Your task to perform on an android device: What's the weather going to be this weekend? Image 0: 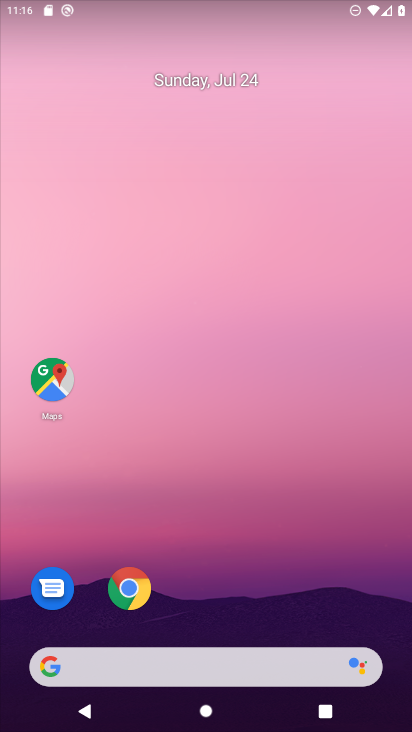
Step 0: drag from (224, 611) to (222, 90)
Your task to perform on an android device: What's the weather going to be this weekend? Image 1: 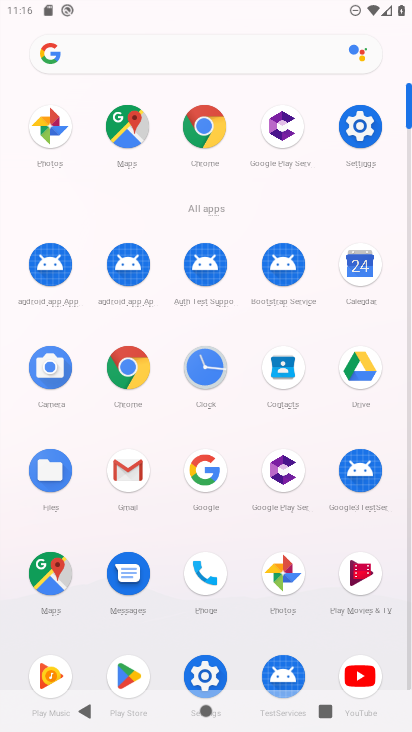
Step 1: click (213, 122)
Your task to perform on an android device: What's the weather going to be this weekend? Image 2: 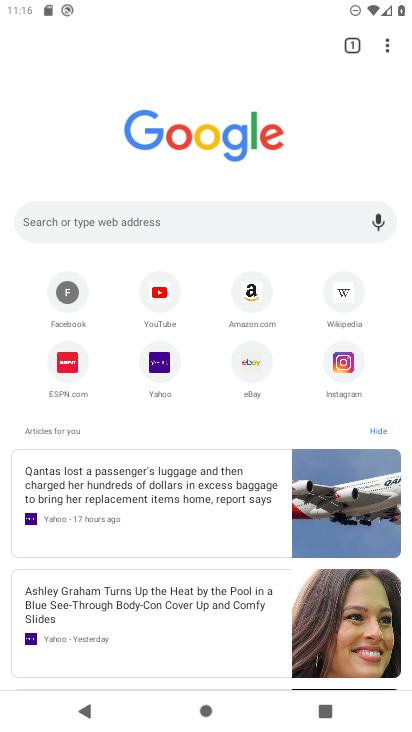
Step 2: click (137, 203)
Your task to perform on an android device: What's the weather going to be this weekend? Image 3: 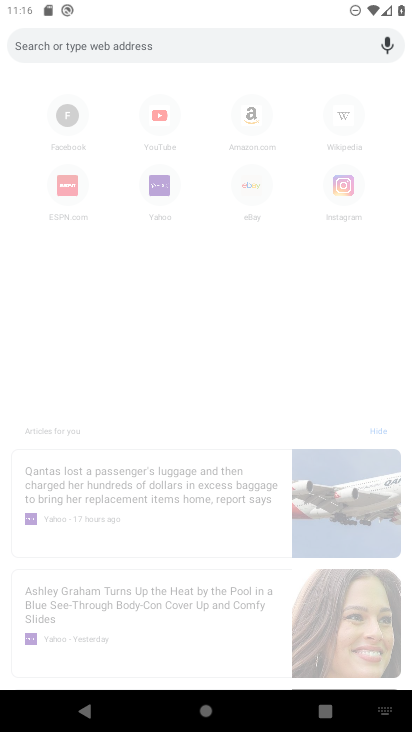
Step 3: type "What's the weather going to be this weekend?"
Your task to perform on an android device: What's the weather going to be this weekend? Image 4: 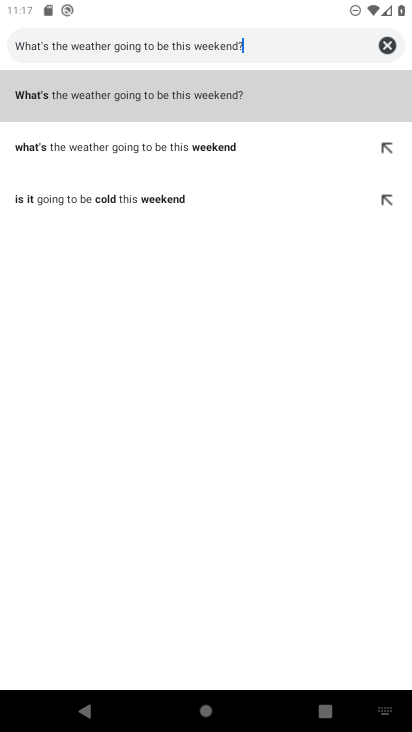
Step 4: click (307, 102)
Your task to perform on an android device: What's the weather going to be this weekend? Image 5: 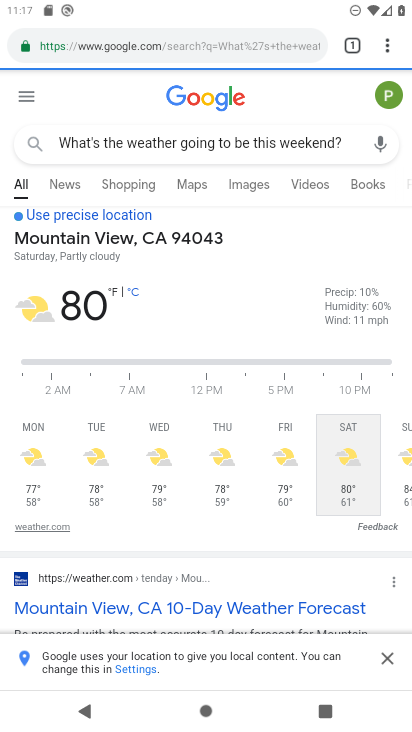
Step 5: task complete